Your task to perform on an android device: check google app version Image 0: 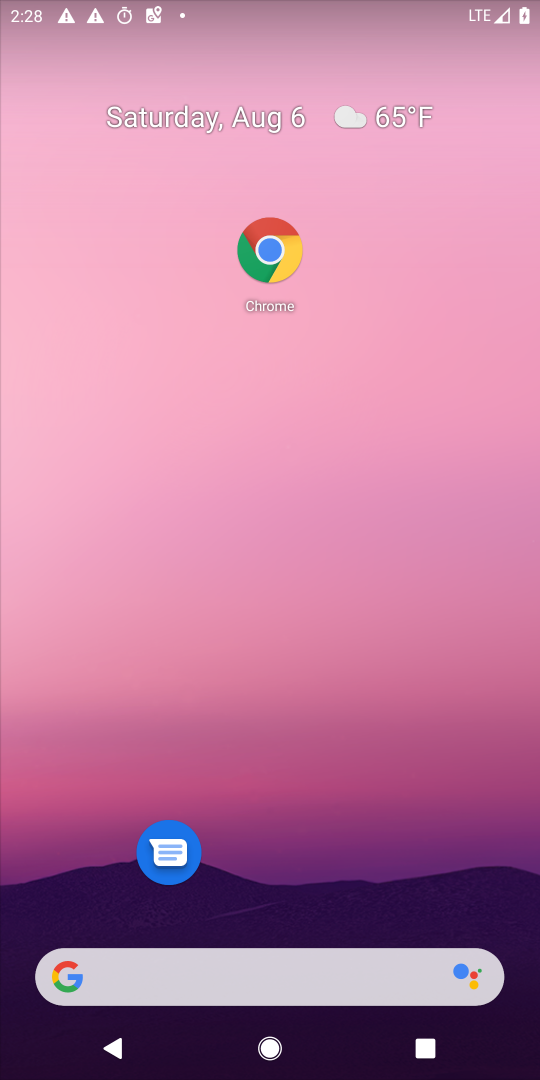
Step 0: press home button
Your task to perform on an android device: check google app version Image 1: 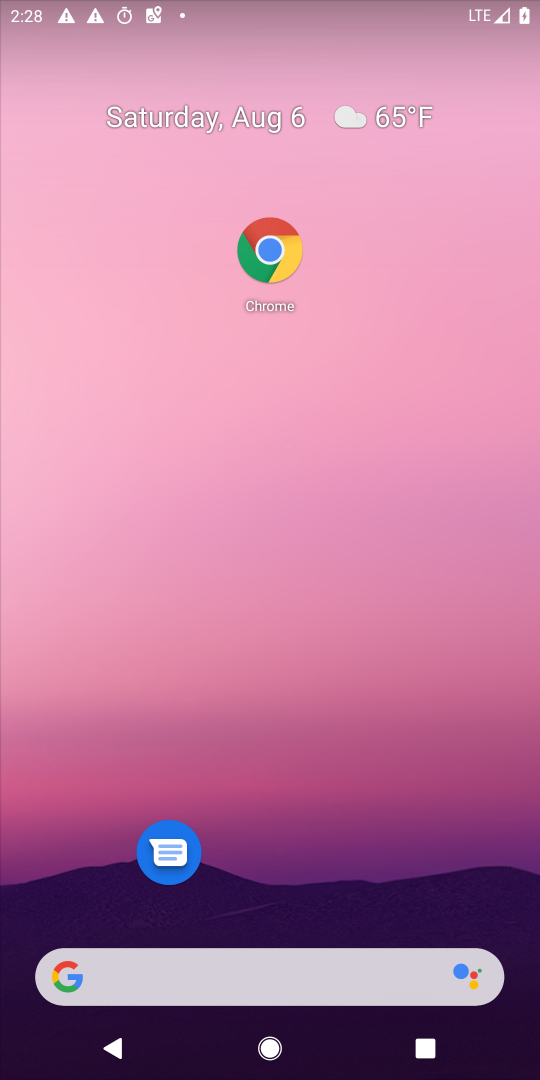
Step 1: drag from (443, 1000) to (456, 415)
Your task to perform on an android device: check google app version Image 2: 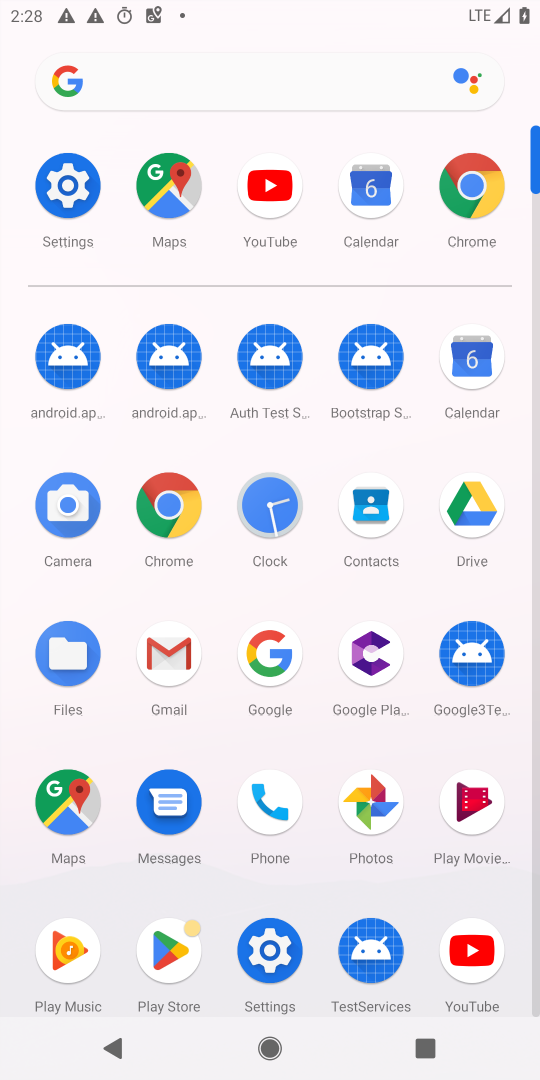
Step 2: click (157, 520)
Your task to perform on an android device: check google app version Image 3: 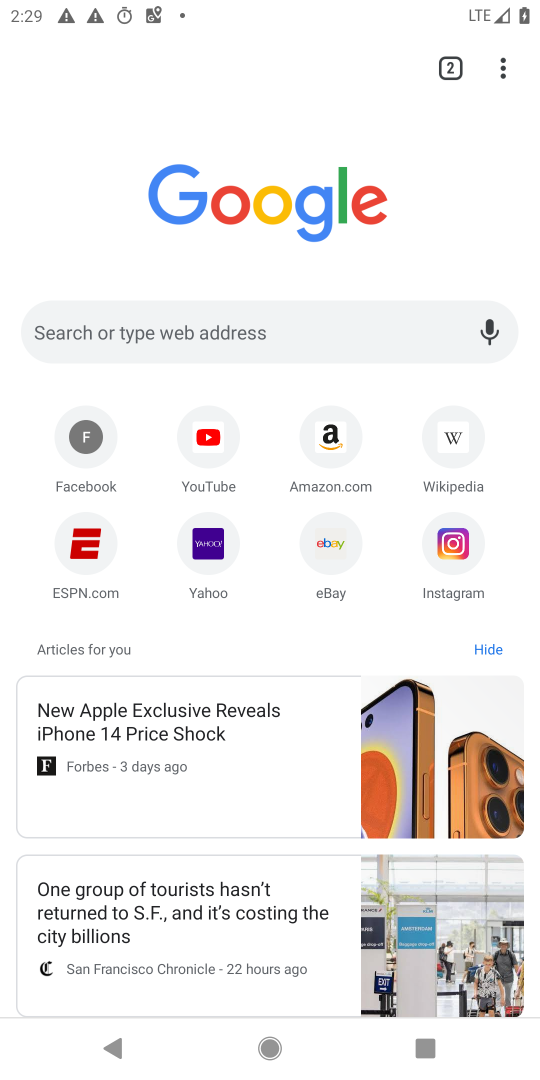
Step 3: click (500, 64)
Your task to perform on an android device: check google app version Image 4: 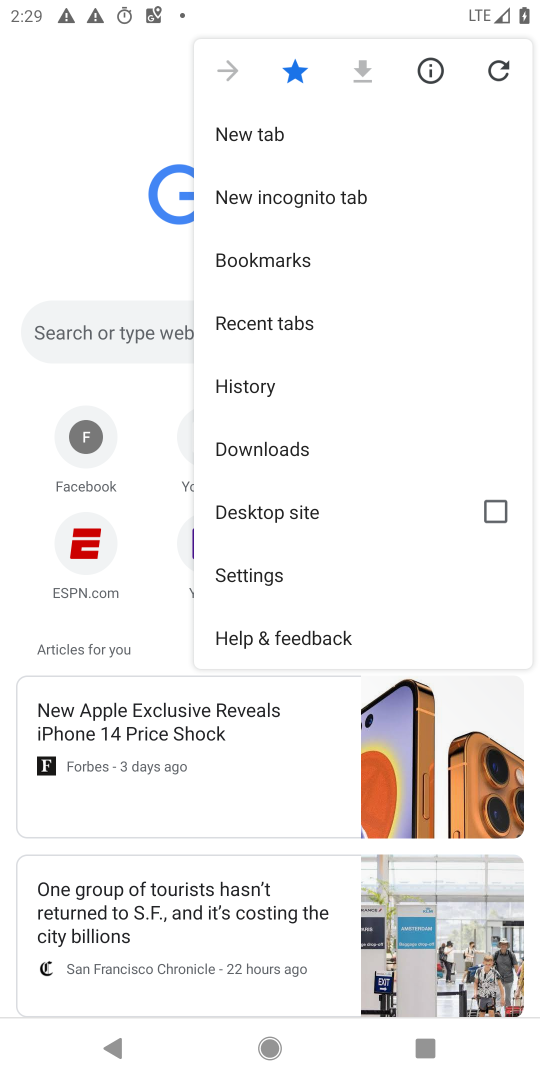
Step 4: click (241, 574)
Your task to perform on an android device: check google app version Image 5: 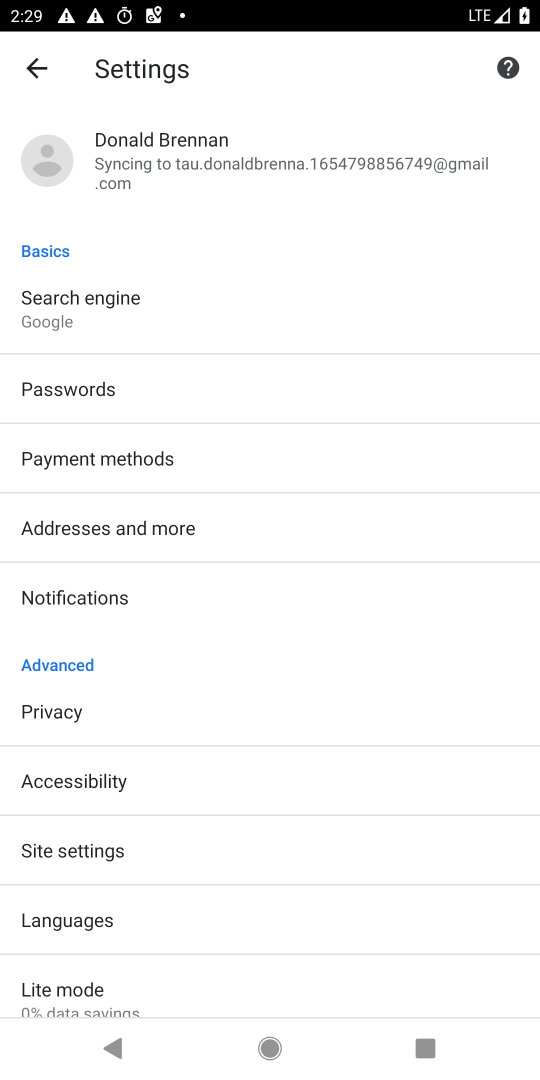
Step 5: drag from (125, 856) to (133, 616)
Your task to perform on an android device: check google app version Image 6: 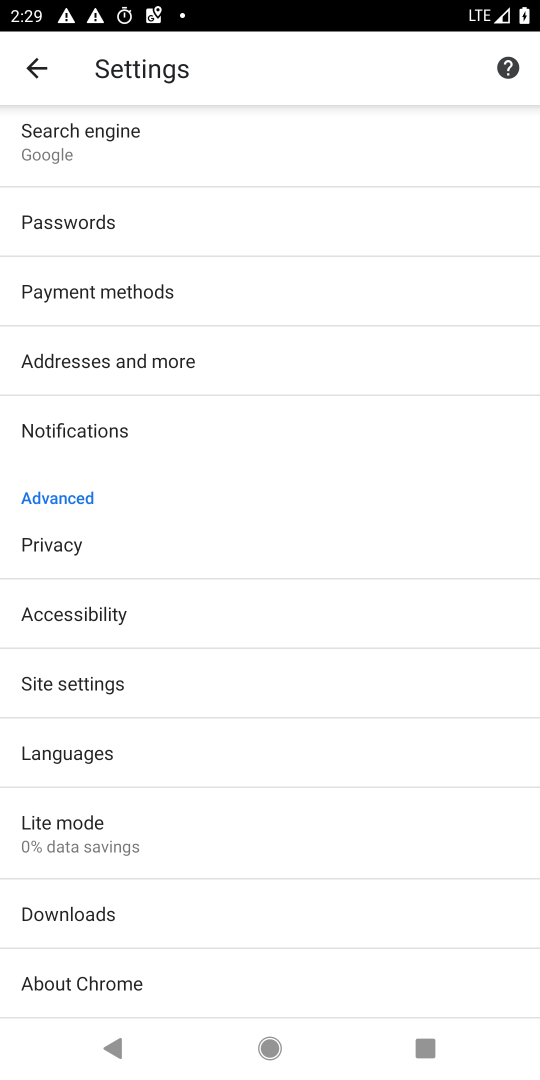
Step 6: click (107, 978)
Your task to perform on an android device: check google app version Image 7: 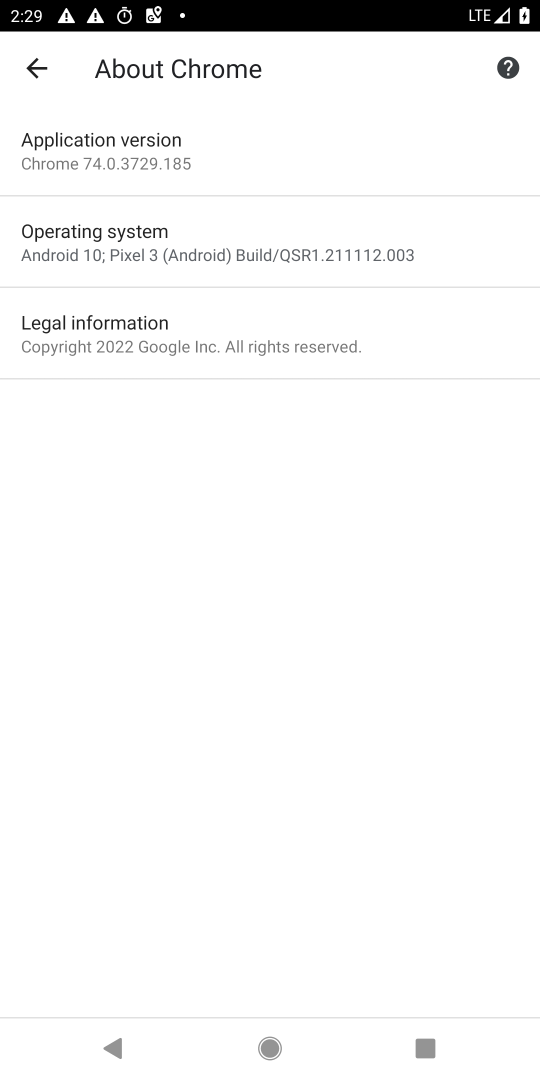
Step 7: click (138, 165)
Your task to perform on an android device: check google app version Image 8: 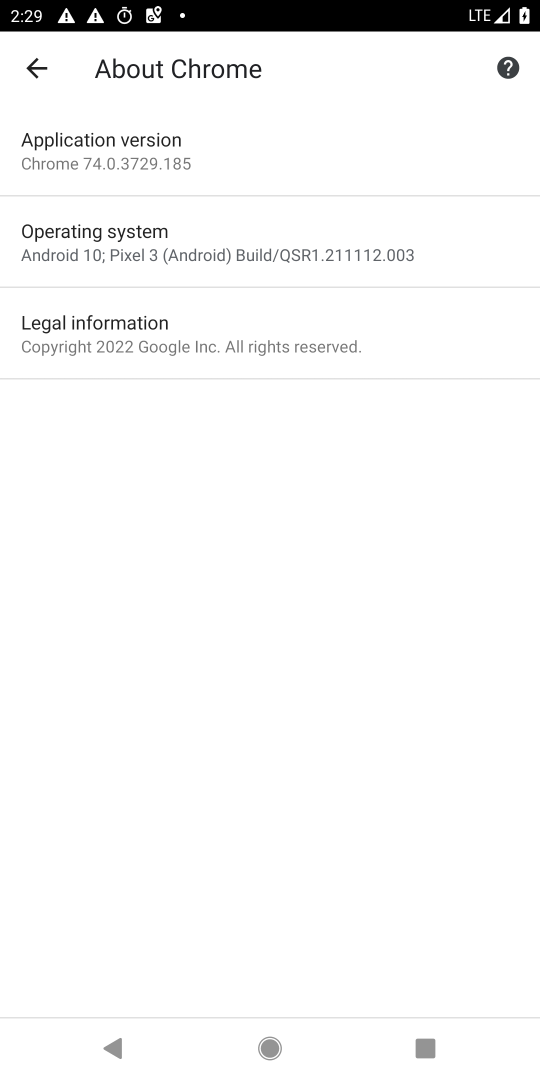
Step 8: task complete